Your task to perform on an android device: Open display settings Image 0: 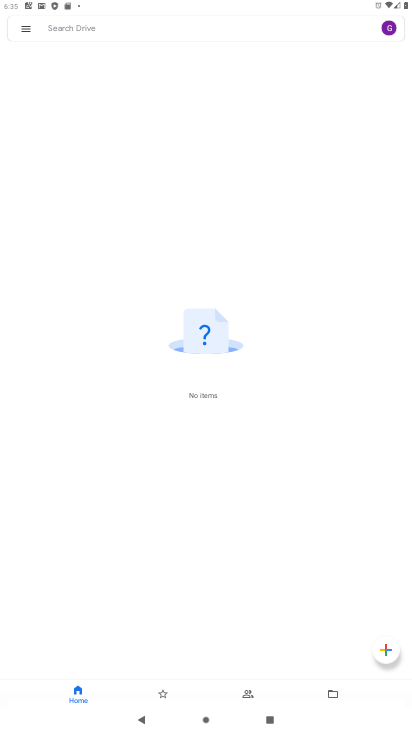
Step 0: press home button
Your task to perform on an android device: Open display settings Image 1: 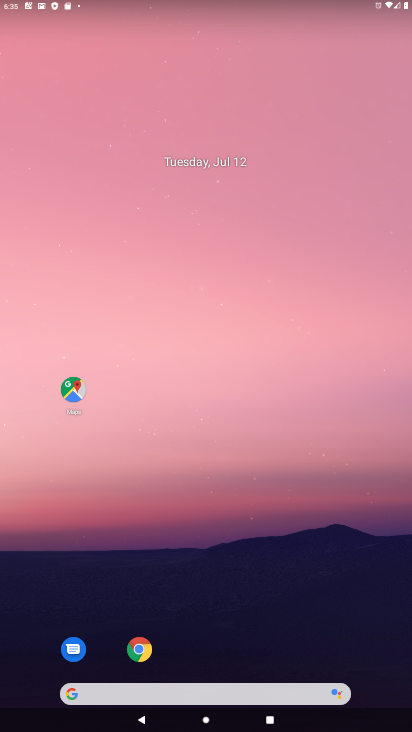
Step 1: drag from (221, 691) to (171, 217)
Your task to perform on an android device: Open display settings Image 2: 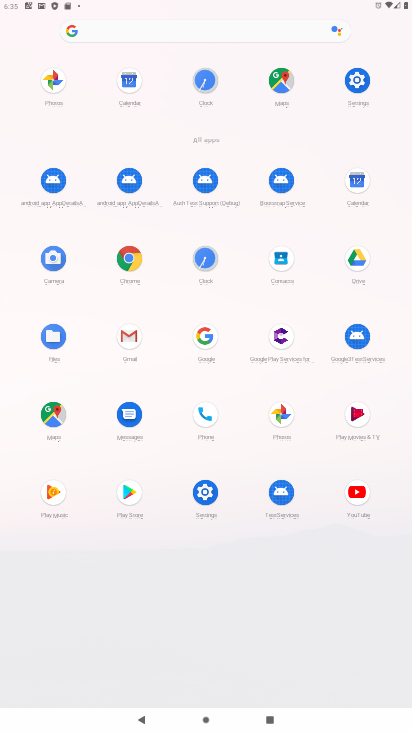
Step 2: click (207, 493)
Your task to perform on an android device: Open display settings Image 3: 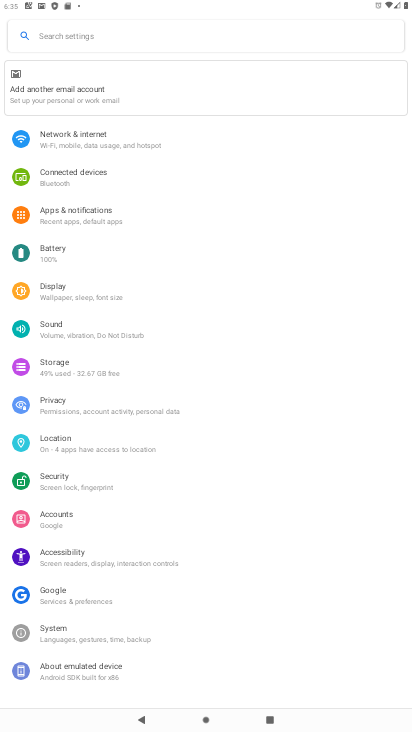
Step 3: click (86, 302)
Your task to perform on an android device: Open display settings Image 4: 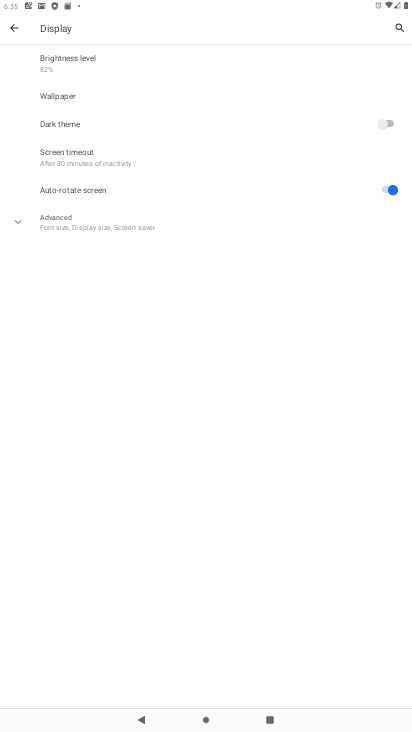
Step 4: task complete